Your task to perform on an android device: move a message to another label in the gmail app Image 0: 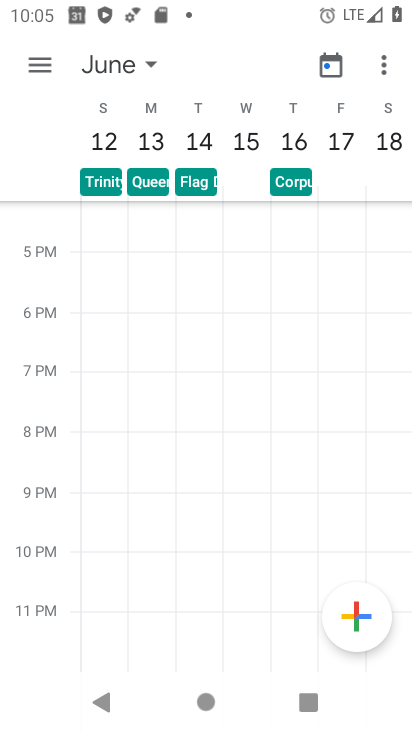
Step 0: press home button
Your task to perform on an android device: move a message to another label in the gmail app Image 1: 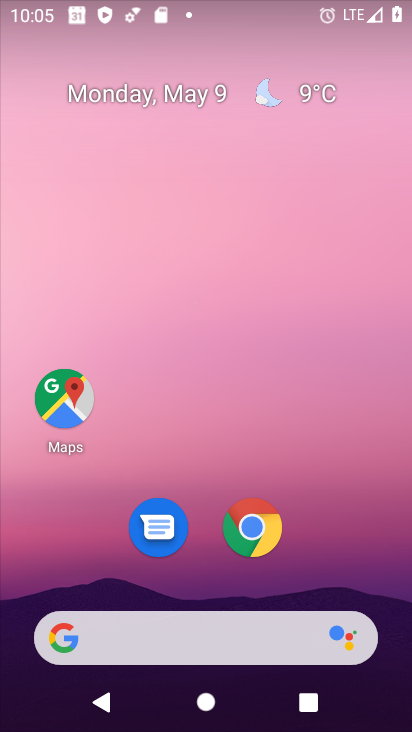
Step 1: drag from (363, 602) to (341, 144)
Your task to perform on an android device: move a message to another label in the gmail app Image 2: 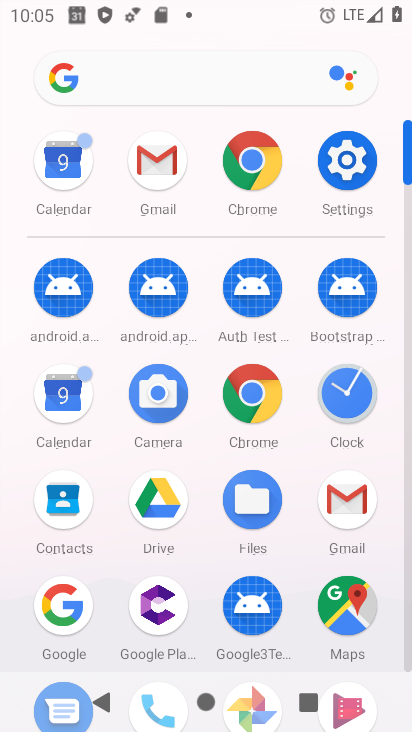
Step 2: click (405, 662)
Your task to perform on an android device: move a message to another label in the gmail app Image 3: 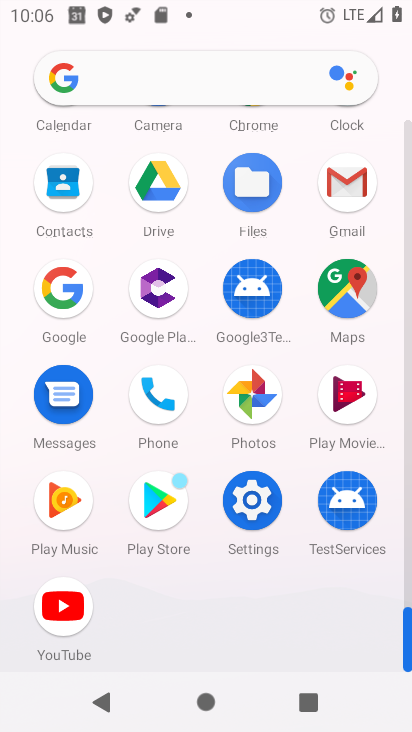
Step 3: click (346, 184)
Your task to perform on an android device: move a message to another label in the gmail app Image 4: 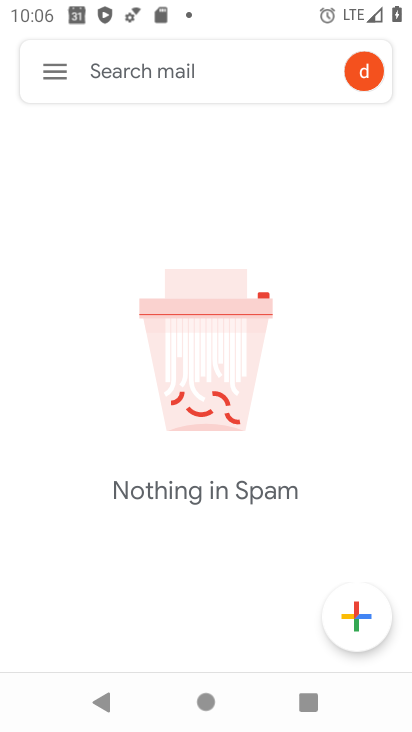
Step 4: click (53, 74)
Your task to perform on an android device: move a message to another label in the gmail app Image 5: 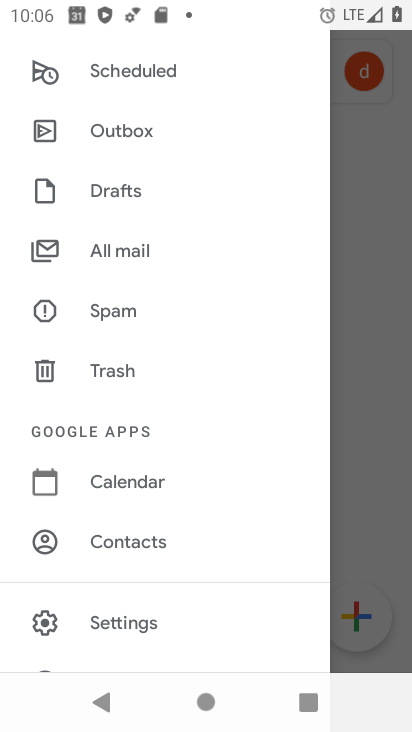
Step 5: click (130, 254)
Your task to perform on an android device: move a message to another label in the gmail app Image 6: 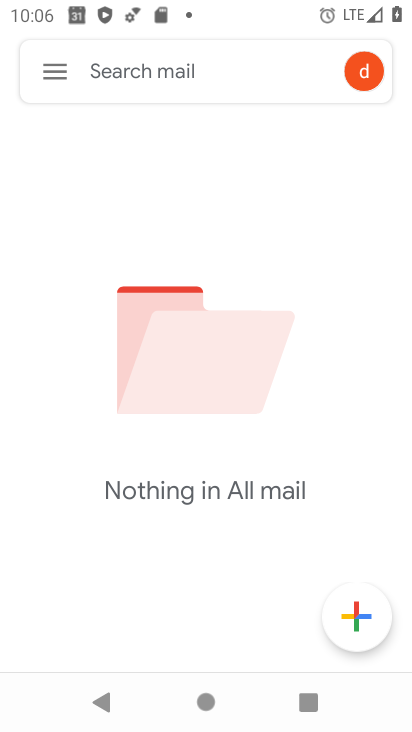
Step 6: task complete